Your task to perform on an android device: search for starred emails in the gmail app Image 0: 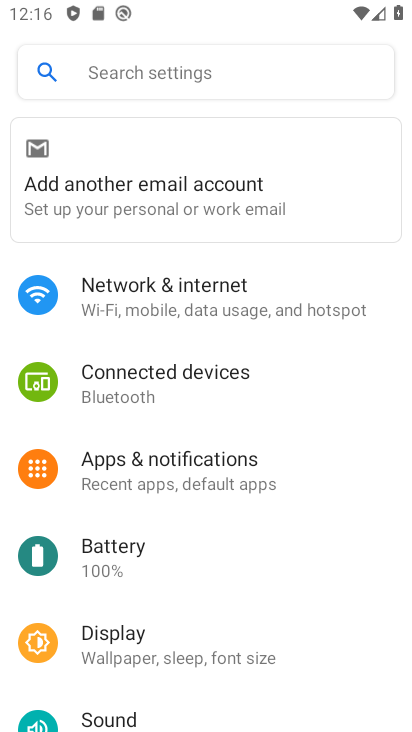
Step 0: drag from (300, 594) to (285, 397)
Your task to perform on an android device: search for starred emails in the gmail app Image 1: 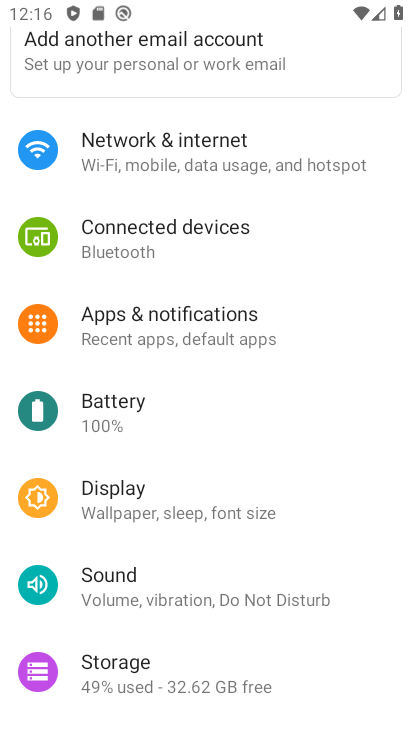
Step 1: press back button
Your task to perform on an android device: search for starred emails in the gmail app Image 2: 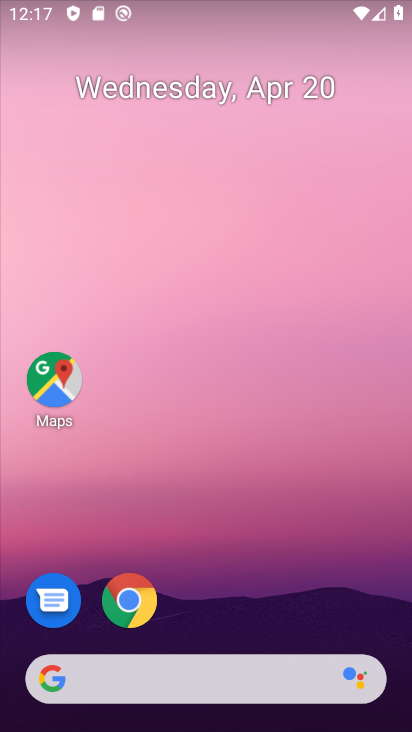
Step 2: drag from (295, 547) to (242, 29)
Your task to perform on an android device: search for starred emails in the gmail app Image 3: 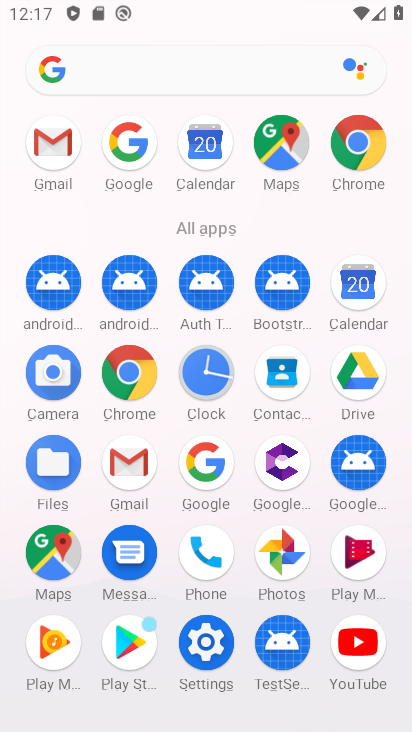
Step 3: click (126, 450)
Your task to perform on an android device: search for starred emails in the gmail app Image 4: 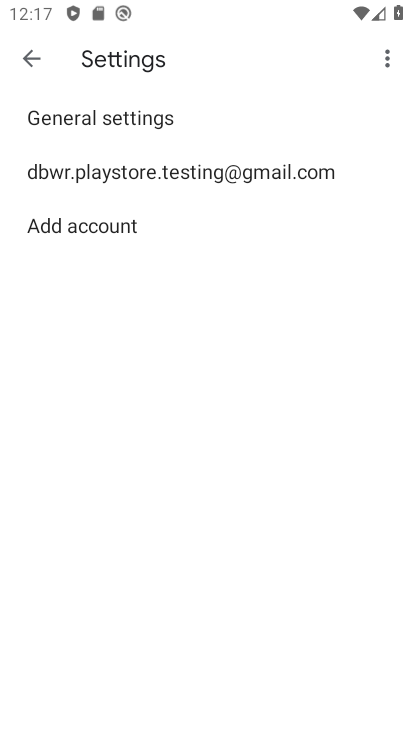
Step 4: click (192, 175)
Your task to perform on an android device: search for starred emails in the gmail app Image 5: 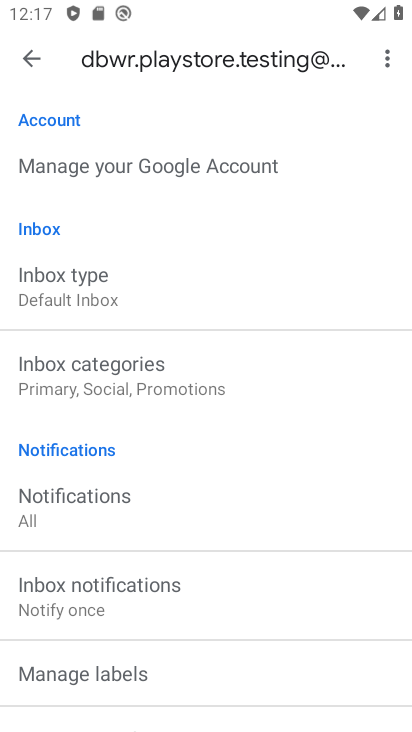
Step 5: click (35, 50)
Your task to perform on an android device: search for starred emails in the gmail app Image 6: 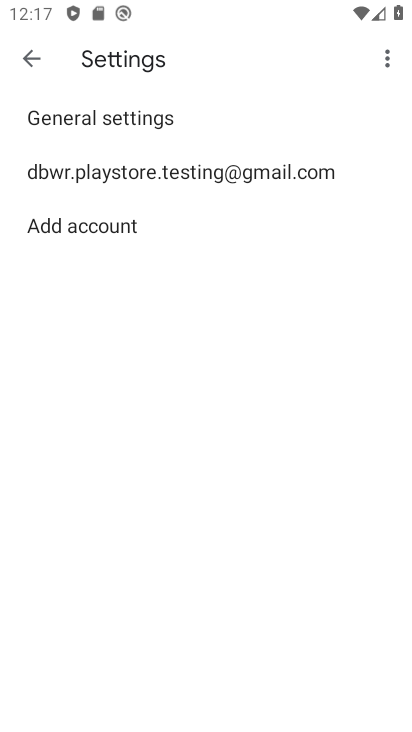
Step 6: click (23, 53)
Your task to perform on an android device: search for starred emails in the gmail app Image 7: 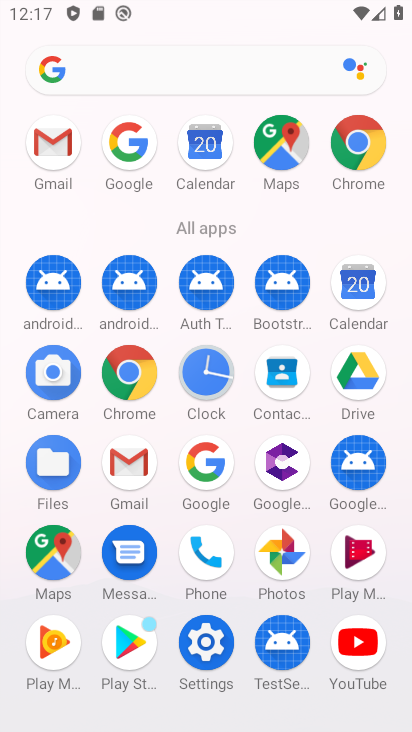
Step 7: click (52, 144)
Your task to perform on an android device: search for starred emails in the gmail app Image 8: 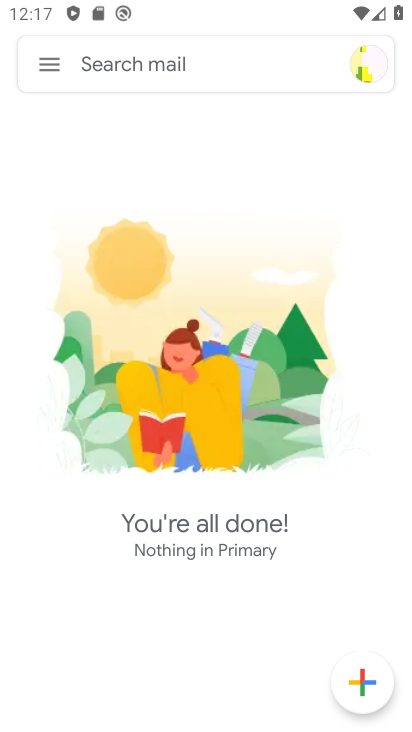
Step 8: click (45, 59)
Your task to perform on an android device: search for starred emails in the gmail app Image 9: 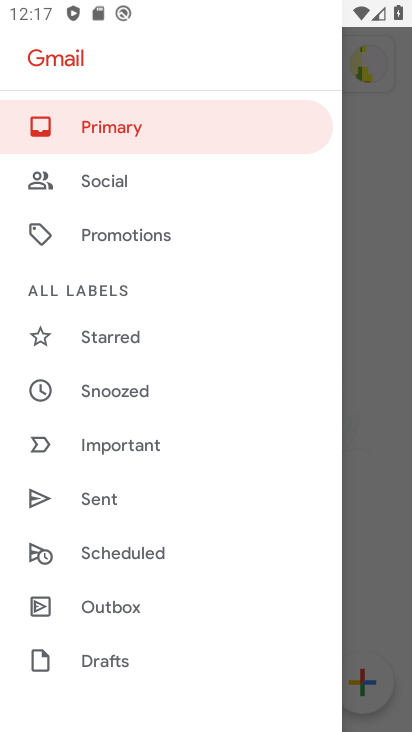
Step 9: click (140, 383)
Your task to perform on an android device: search for starred emails in the gmail app Image 10: 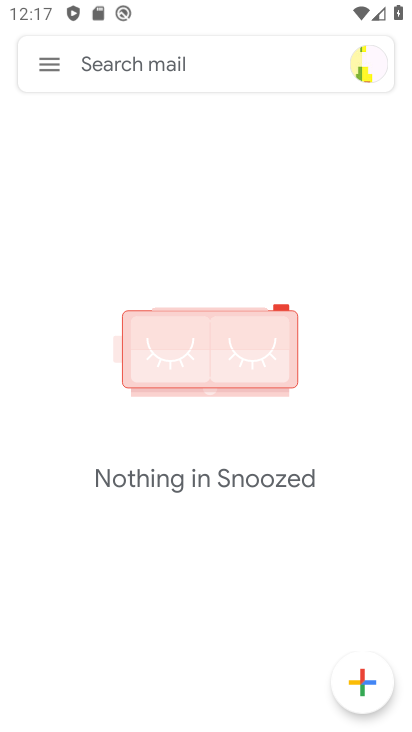
Step 10: click (37, 62)
Your task to perform on an android device: search for starred emails in the gmail app Image 11: 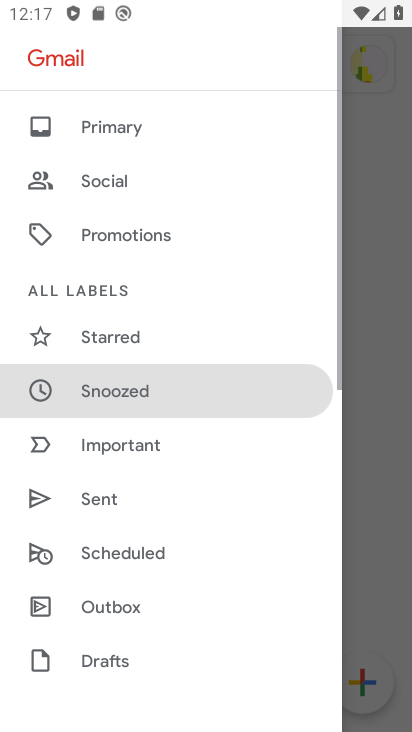
Step 11: click (151, 327)
Your task to perform on an android device: search for starred emails in the gmail app Image 12: 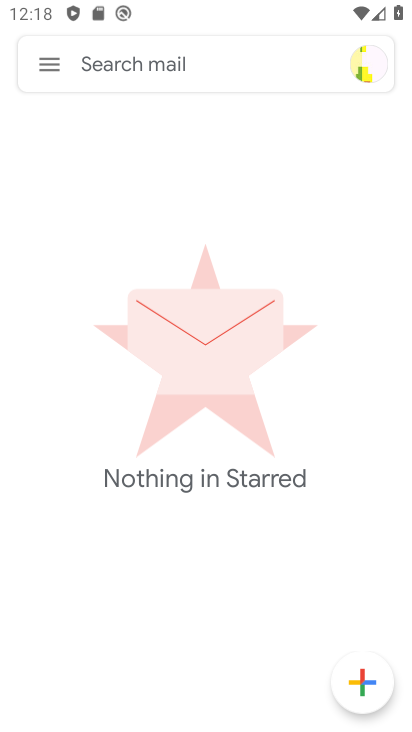
Step 12: task complete